Your task to perform on an android device: Open the stopwatch Image 0: 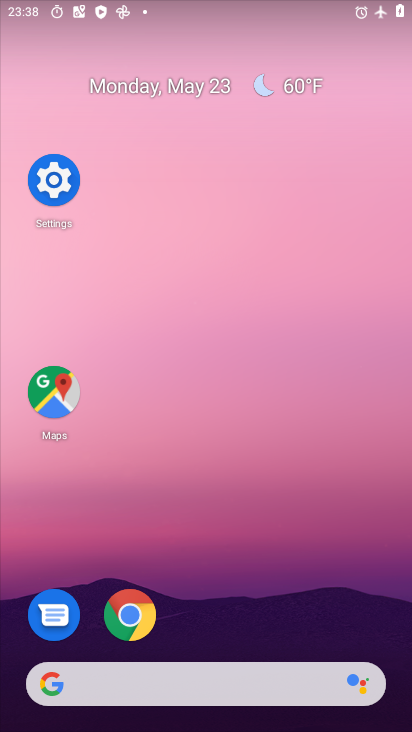
Step 0: drag from (306, 560) to (331, 31)
Your task to perform on an android device: Open the stopwatch Image 1: 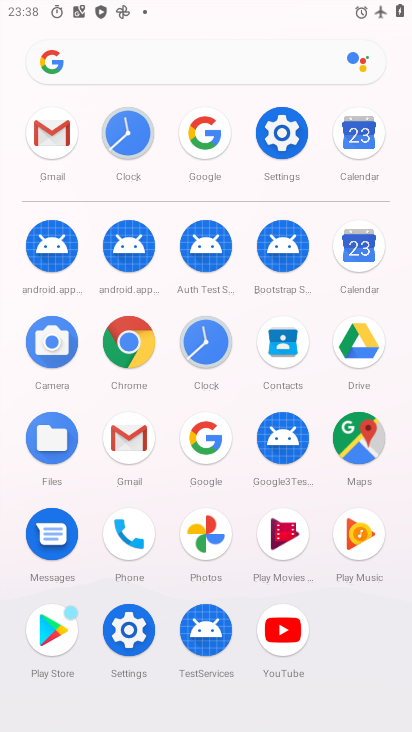
Step 1: click (207, 350)
Your task to perform on an android device: Open the stopwatch Image 2: 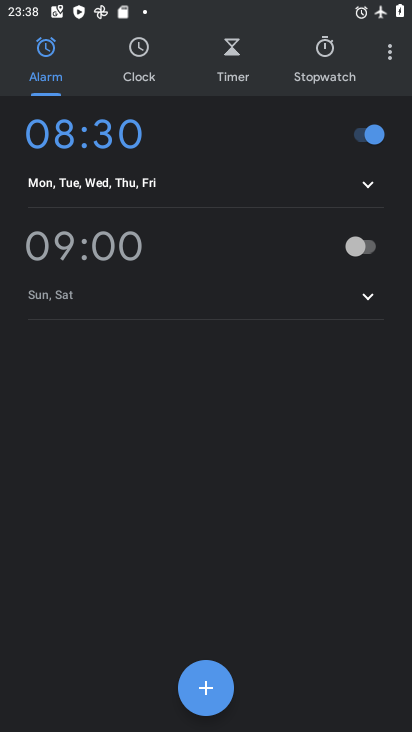
Step 2: click (331, 64)
Your task to perform on an android device: Open the stopwatch Image 3: 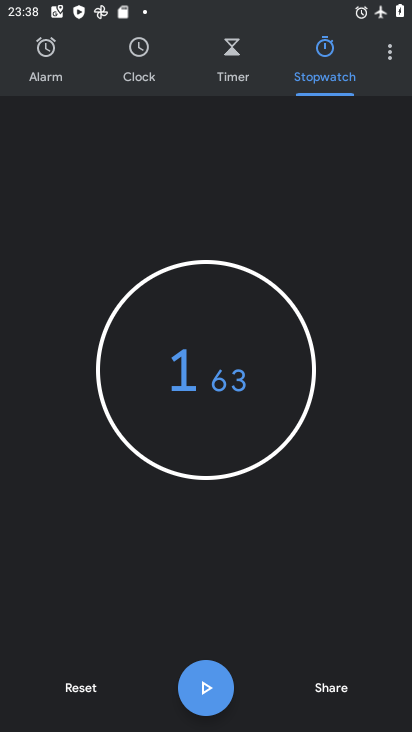
Step 3: click (212, 692)
Your task to perform on an android device: Open the stopwatch Image 4: 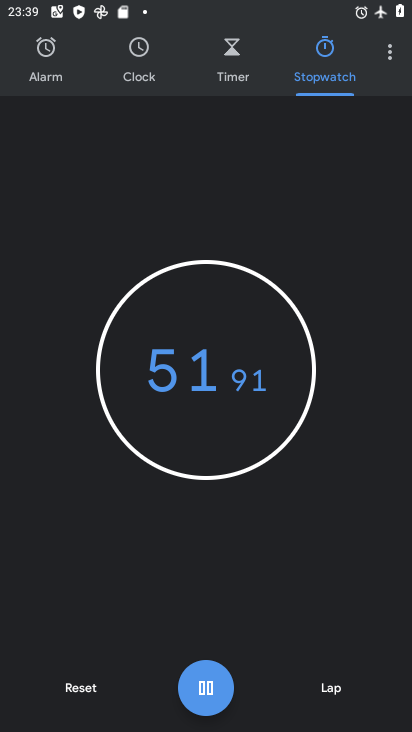
Step 4: task complete